Your task to perform on an android device: What's the weather today? Image 0: 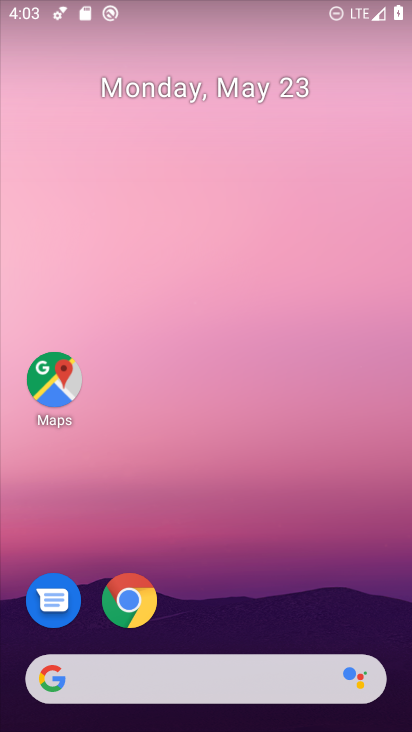
Step 0: click (117, 681)
Your task to perform on an android device: What's the weather today? Image 1: 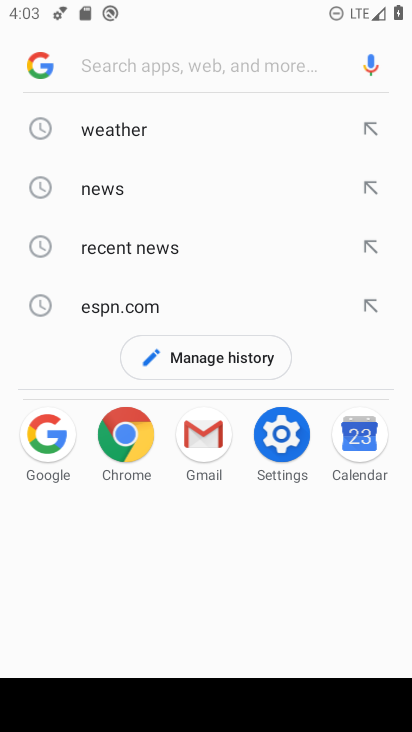
Step 1: click (112, 131)
Your task to perform on an android device: What's the weather today? Image 2: 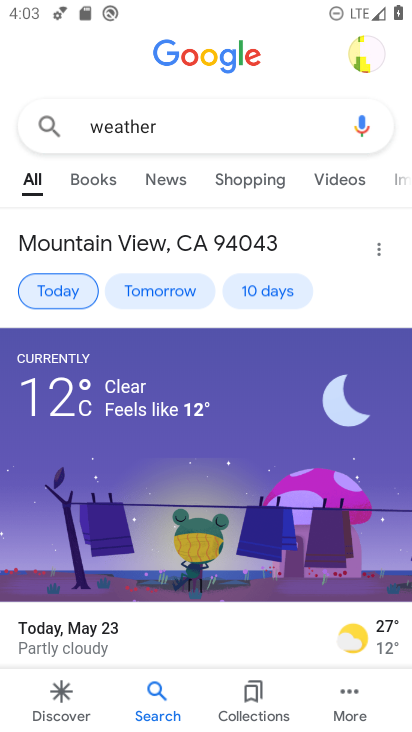
Step 2: task complete